Your task to perform on an android device: Go to location settings Image 0: 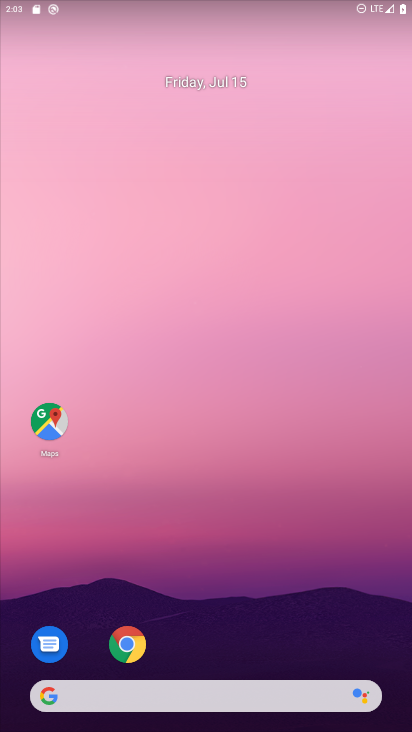
Step 0: drag from (27, 635) to (235, 107)
Your task to perform on an android device: Go to location settings Image 1: 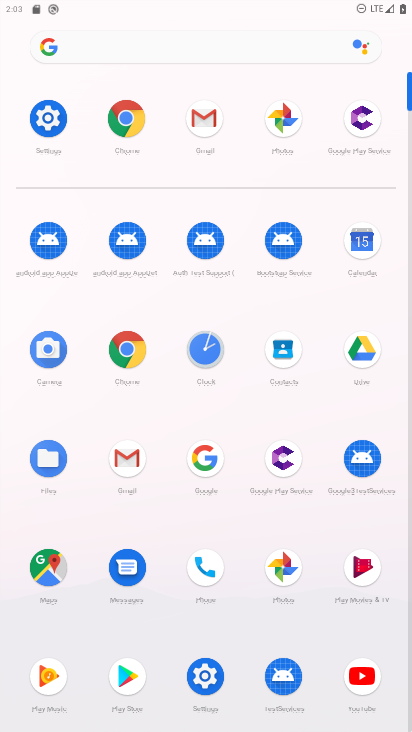
Step 1: click (203, 677)
Your task to perform on an android device: Go to location settings Image 2: 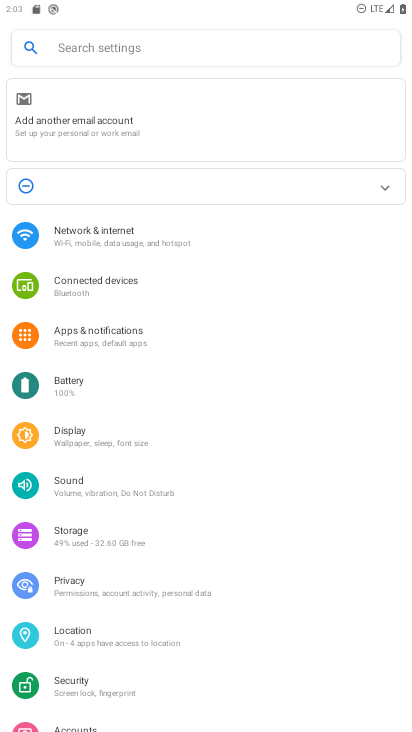
Step 2: click (149, 644)
Your task to perform on an android device: Go to location settings Image 3: 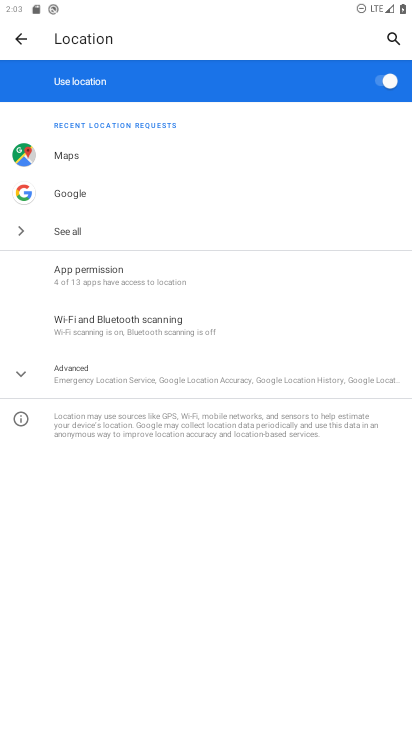
Step 3: task complete